Your task to perform on an android device: Look up the best rated coffee table on Ikea Image 0: 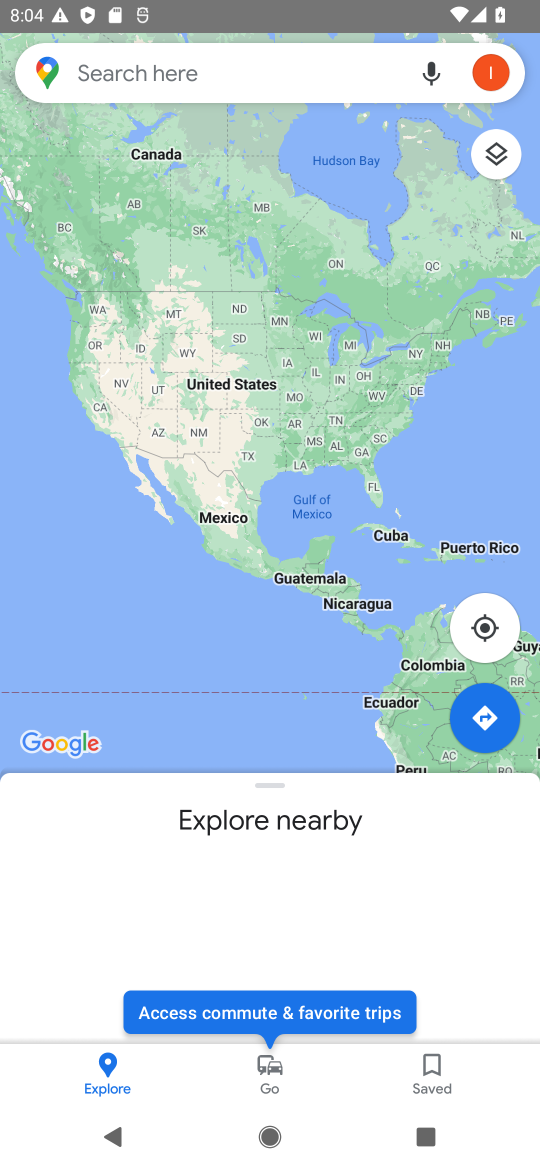
Step 0: press home button
Your task to perform on an android device: Look up the best rated coffee table on Ikea Image 1: 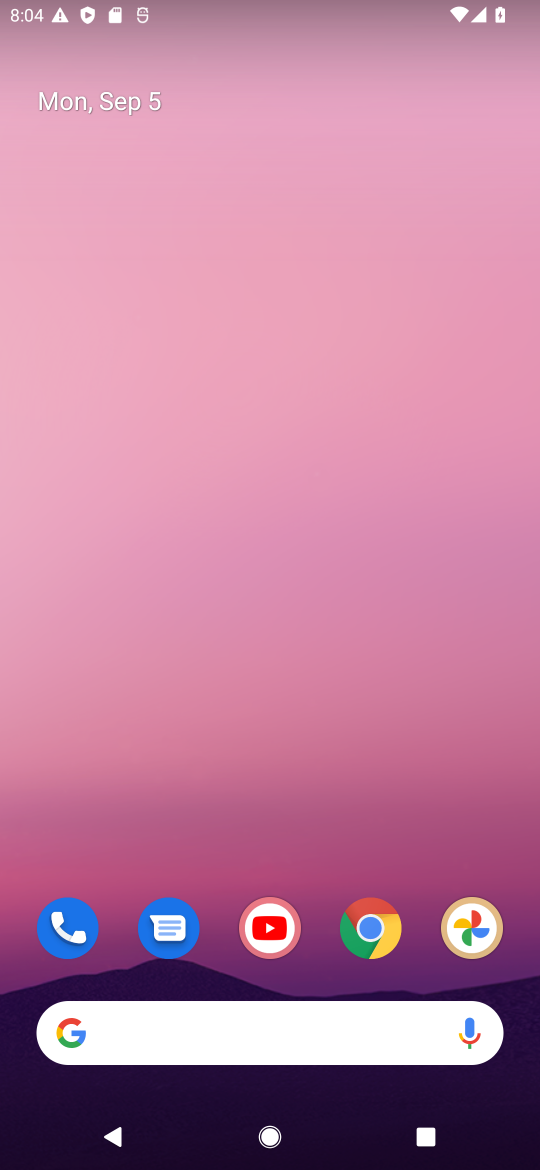
Step 1: click (378, 925)
Your task to perform on an android device: Look up the best rated coffee table on Ikea Image 2: 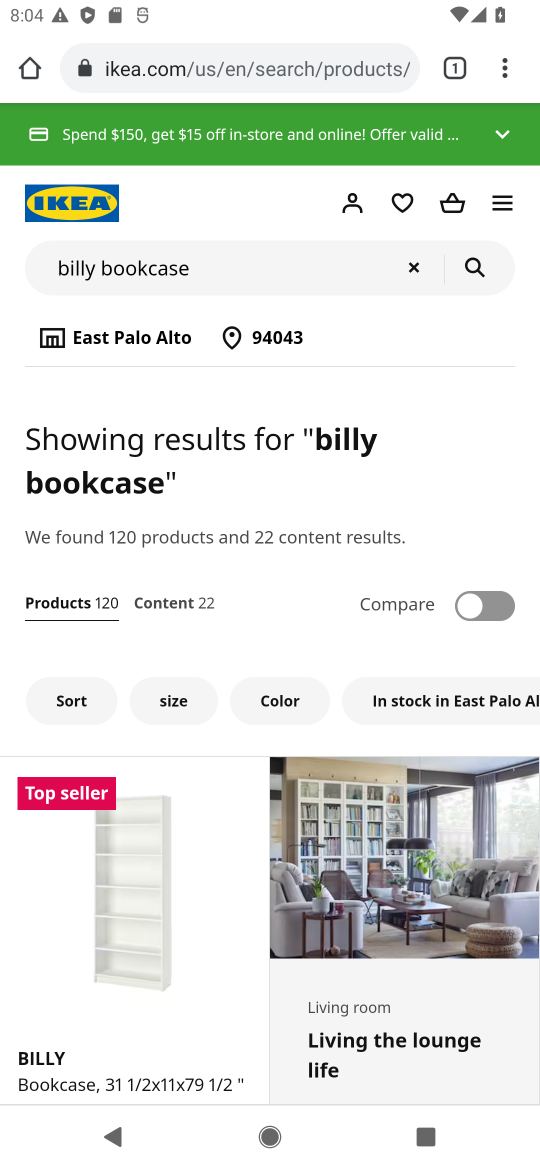
Step 2: click (315, 69)
Your task to perform on an android device: Look up the best rated coffee table on Ikea Image 3: 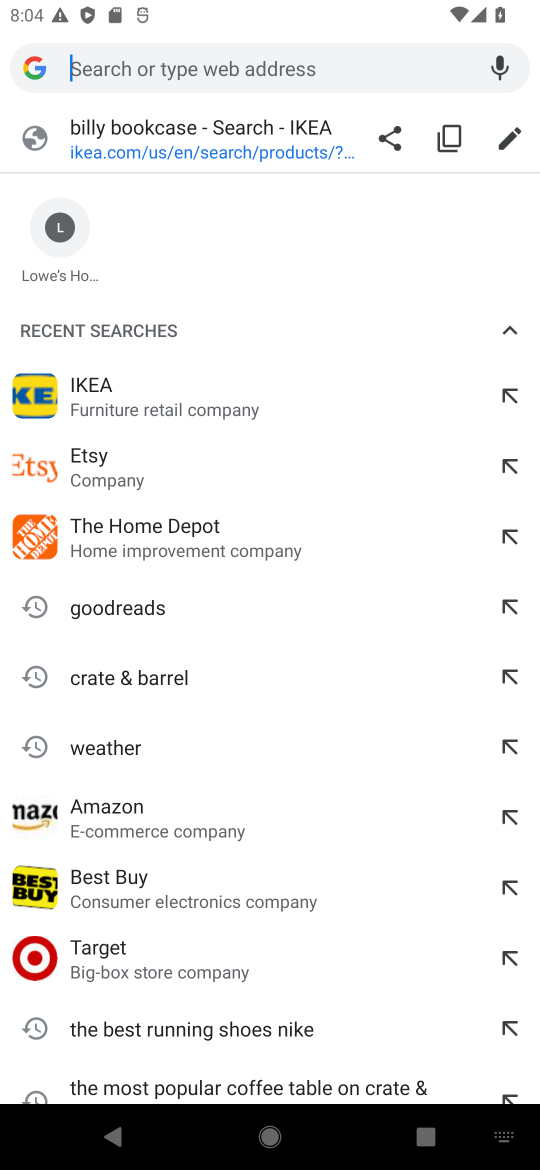
Step 3: click (102, 406)
Your task to perform on an android device: Look up the best rated coffee table on Ikea Image 4: 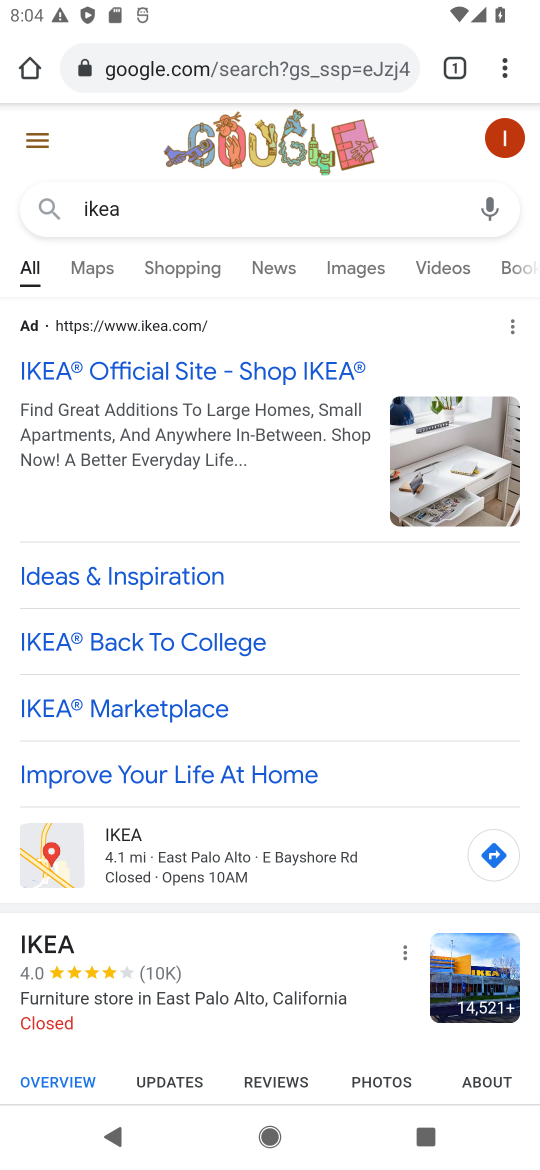
Step 4: click (96, 370)
Your task to perform on an android device: Look up the best rated coffee table on Ikea Image 5: 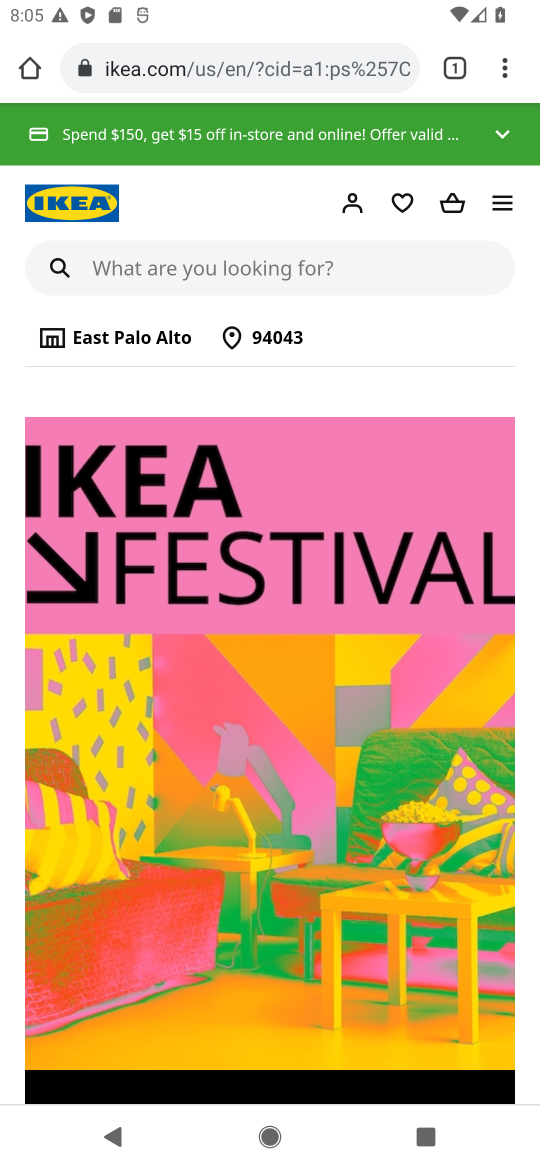
Step 5: click (402, 261)
Your task to perform on an android device: Look up the best rated coffee table on Ikea Image 6: 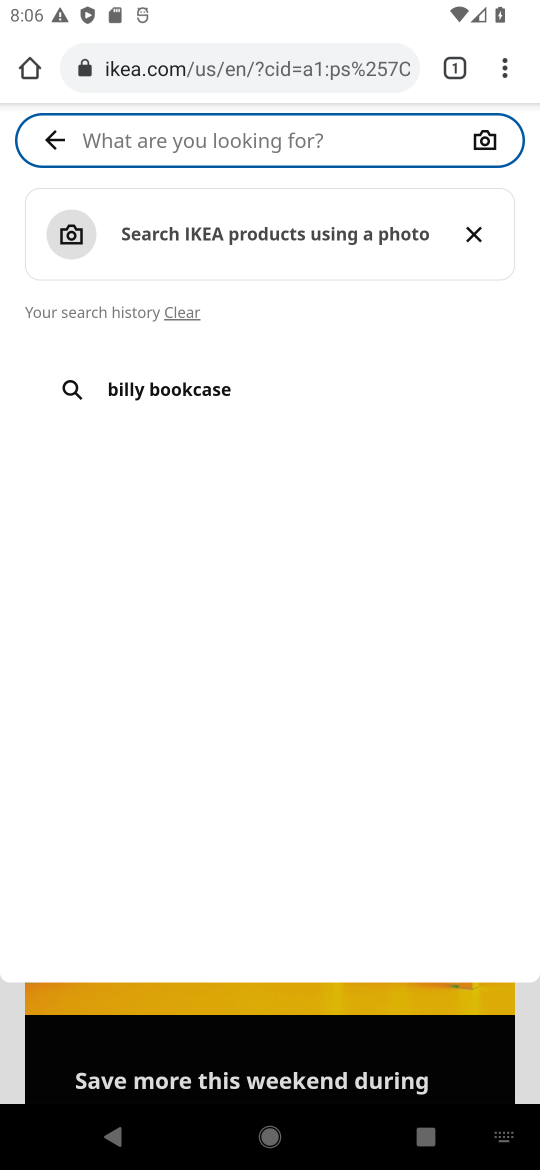
Step 6: type "ikea"
Your task to perform on an android device: Look up the best rated coffee table on Ikea Image 7: 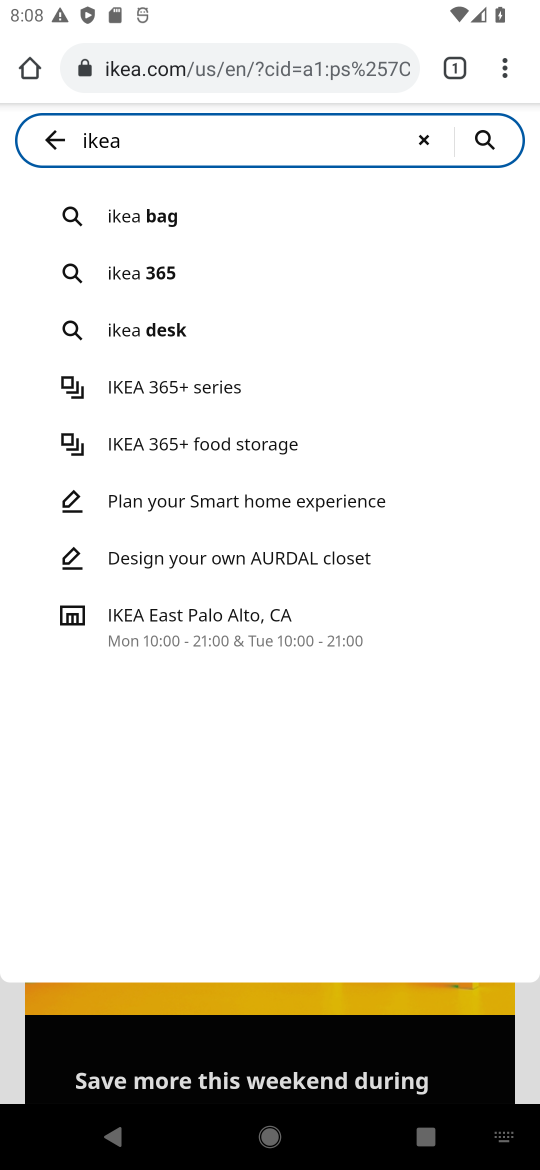
Step 7: click (167, 391)
Your task to perform on an android device: Look up the best rated coffee table on Ikea Image 8: 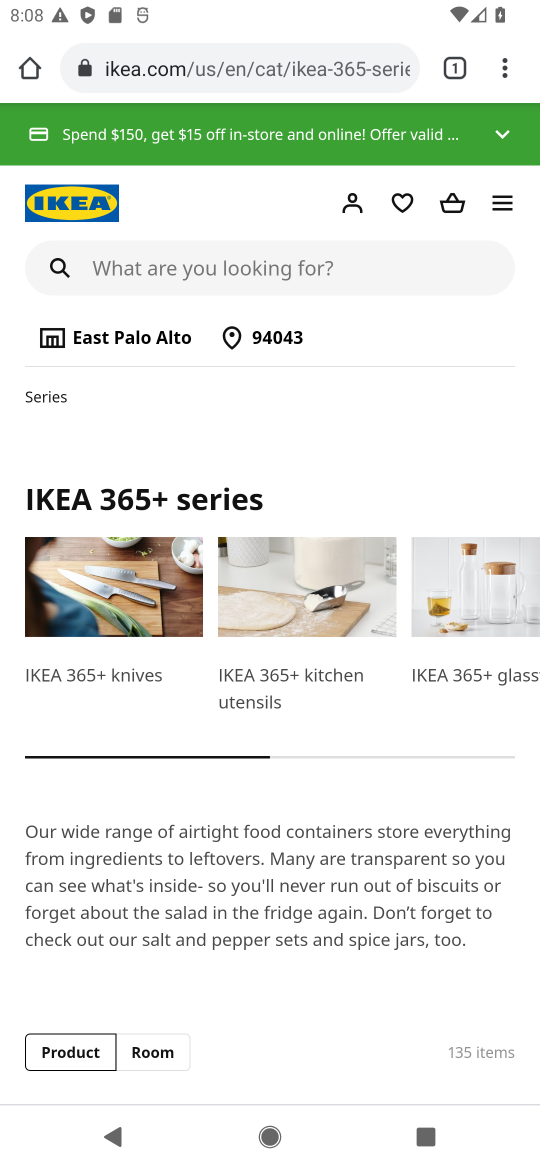
Step 8: type "rated coffee"
Your task to perform on an android device: Look up the best rated coffee table on Ikea Image 9: 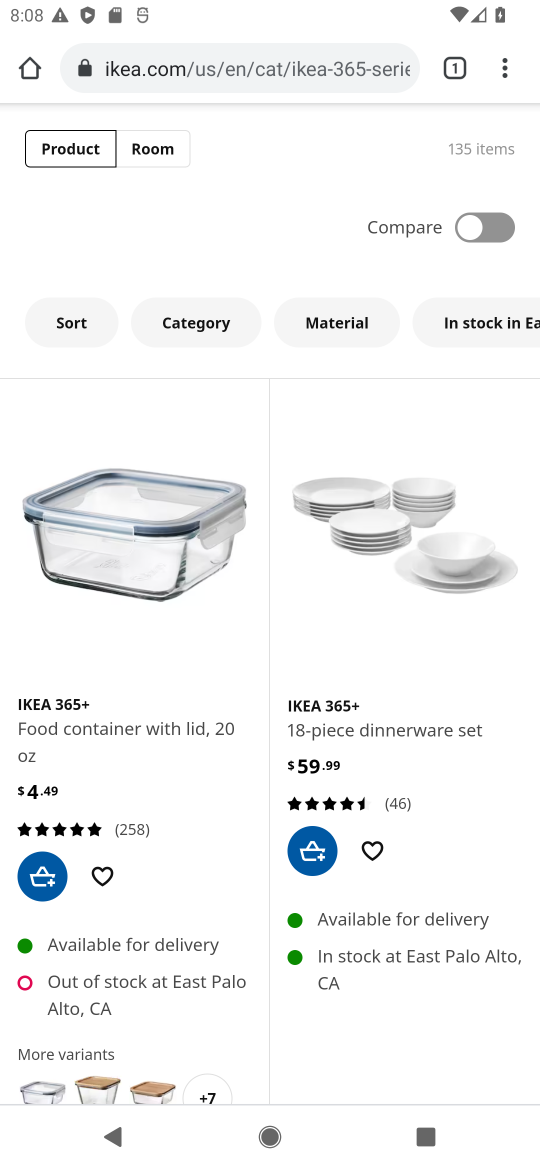
Step 9: task complete